Your task to perform on an android device: See recent photos Image 0: 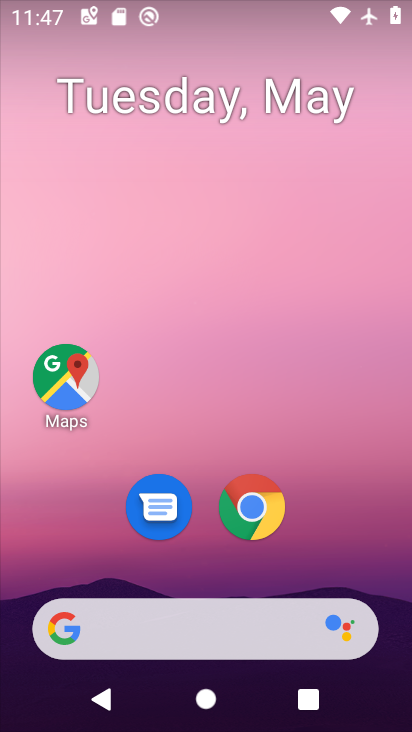
Step 0: drag from (259, 561) to (236, 173)
Your task to perform on an android device: See recent photos Image 1: 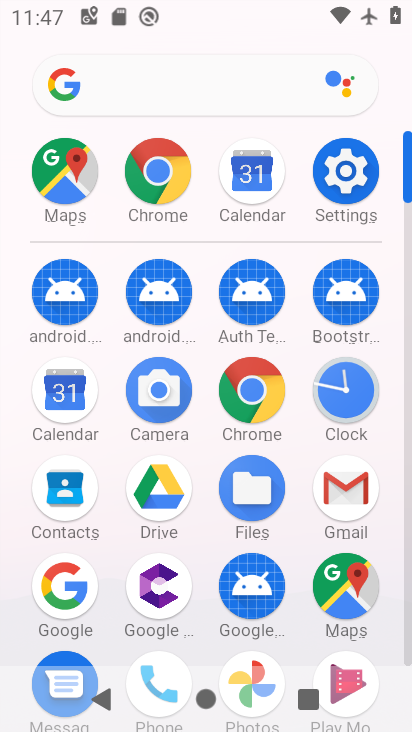
Step 1: click (230, 195)
Your task to perform on an android device: See recent photos Image 2: 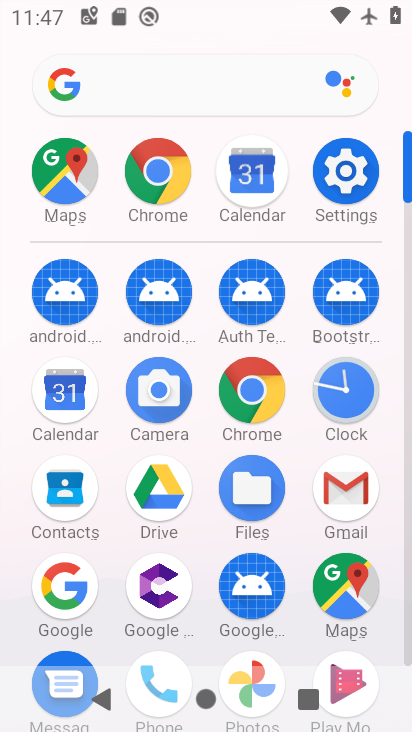
Step 2: drag from (217, 644) to (243, 263)
Your task to perform on an android device: See recent photos Image 3: 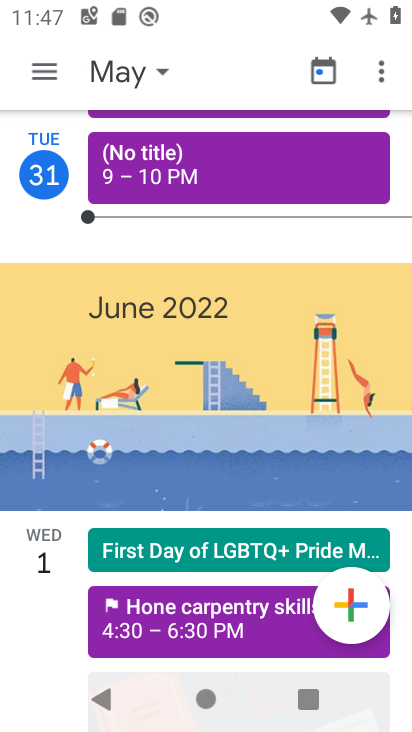
Step 3: drag from (281, 541) to (292, 274)
Your task to perform on an android device: See recent photos Image 4: 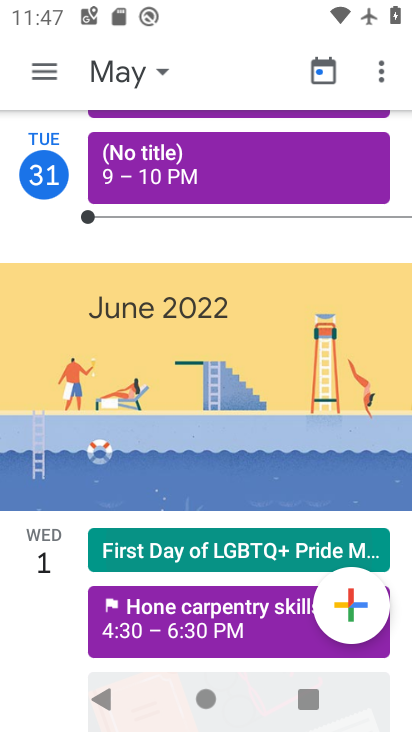
Step 4: click (298, 309)
Your task to perform on an android device: See recent photos Image 5: 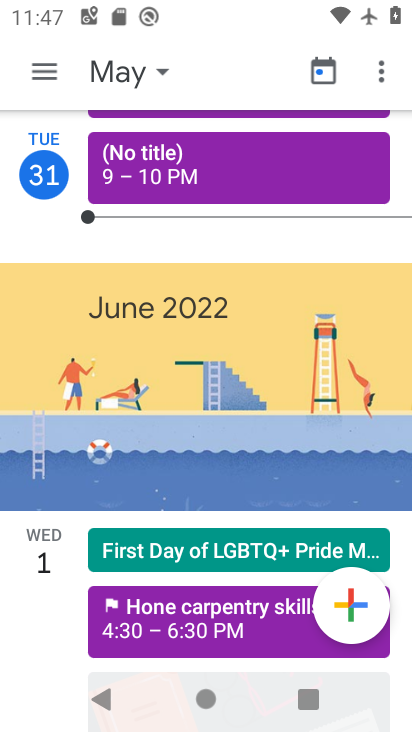
Step 5: drag from (304, 491) to (308, 248)
Your task to perform on an android device: See recent photos Image 6: 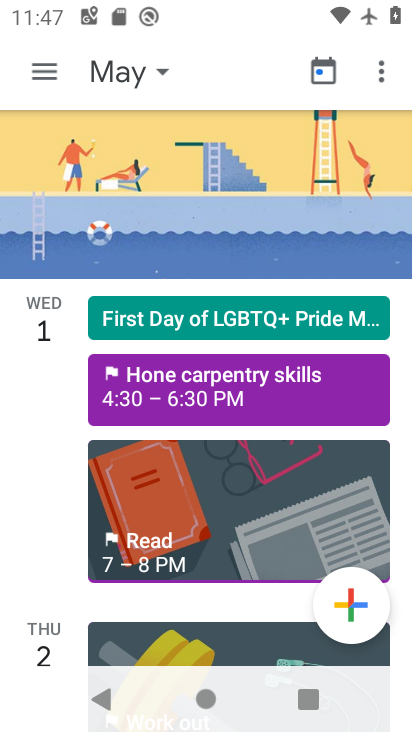
Step 6: press back button
Your task to perform on an android device: See recent photos Image 7: 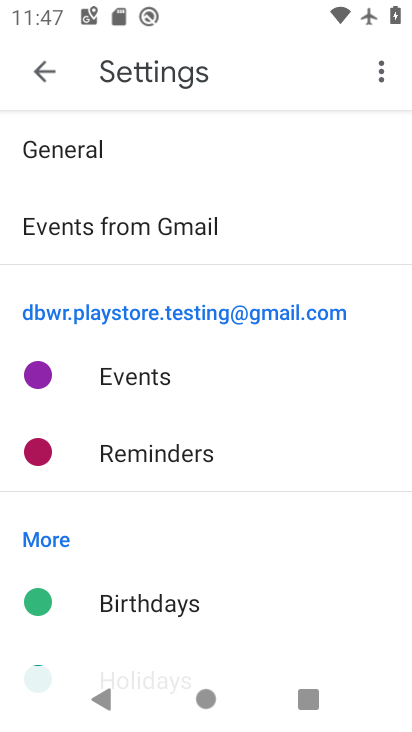
Step 7: click (49, 72)
Your task to perform on an android device: See recent photos Image 8: 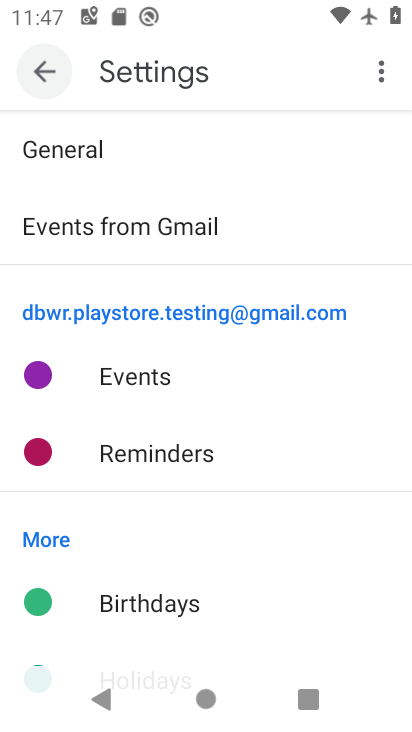
Step 8: click (49, 72)
Your task to perform on an android device: See recent photos Image 9: 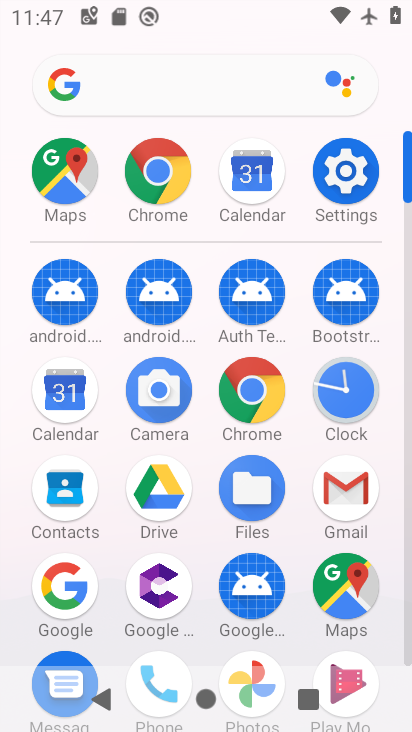
Step 9: click (266, 109)
Your task to perform on an android device: See recent photos Image 10: 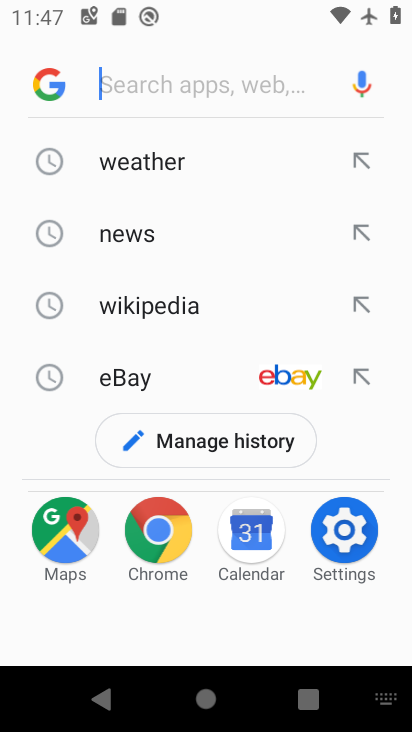
Step 10: click (259, 643)
Your task to perform on an android device: See recent photos Image 11: 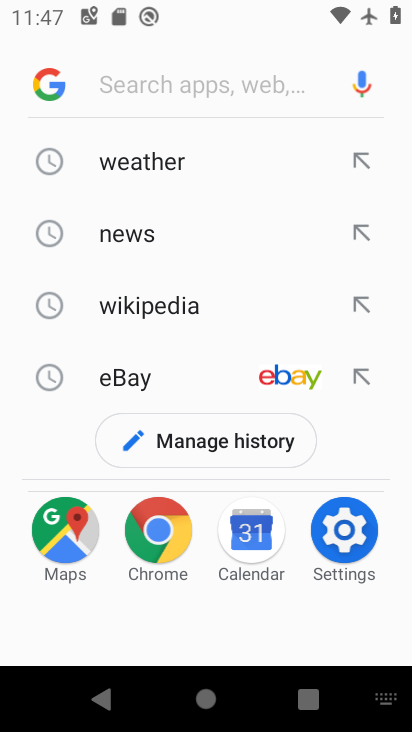
Step 11: drag from (295, 457) to (311, 115)
Your task to perform on an android device: See recent photos Image 12: 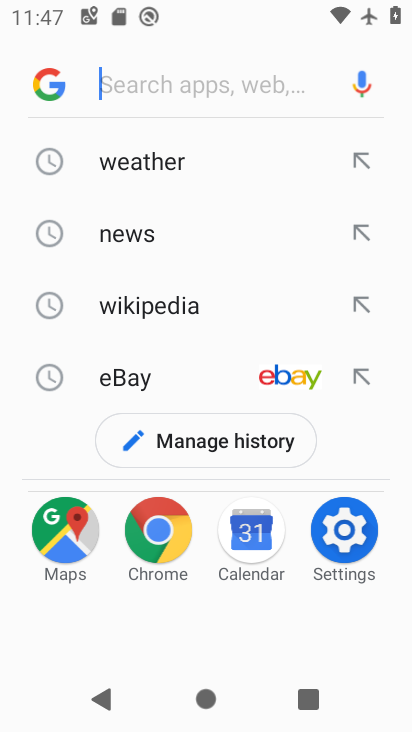
Step 12: drag from (294, 397) to (303, 157)
Your task to perform on an android device: See recent photos Image 13: 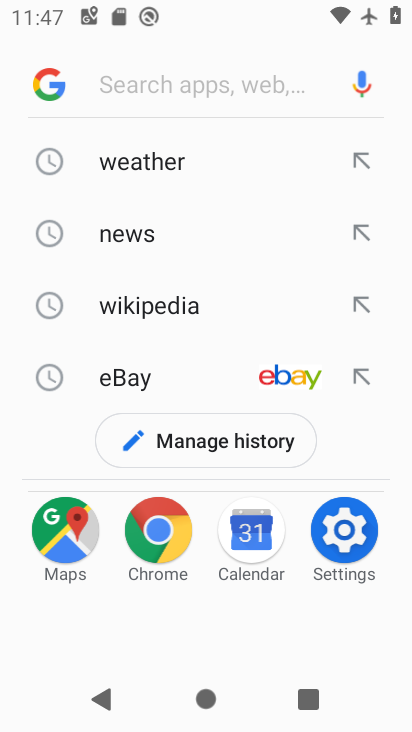
Step 13: drag from (275, 573) to (332, 145)
Your task to perform on an android device: See recent photos Image 14: 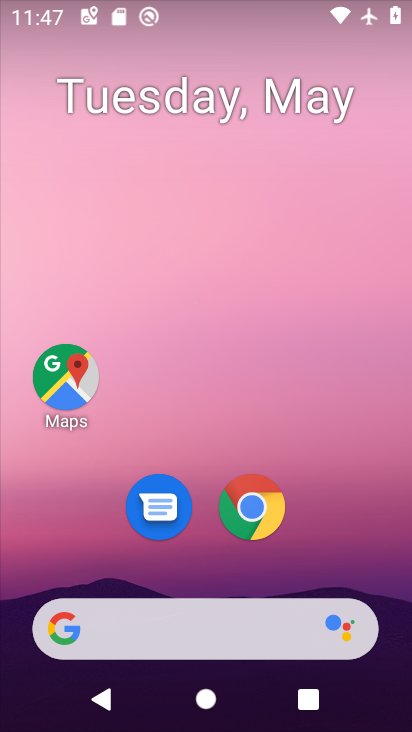
Step 14: press back button
Your task to perform on an android device: See recent photos Image 15: 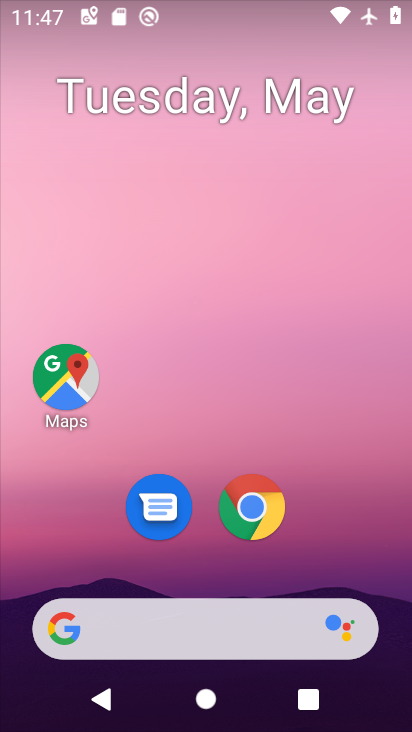
Step 15: press back button
Your task to perform on an android device: See recent photos Image 16: 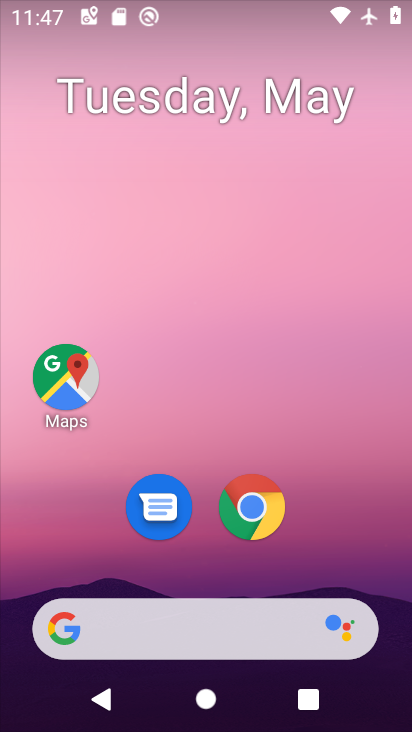
Step 16: drag from (266, 572) to (266, 118)
Your task to perform on an android device: See recent photos Image 17: 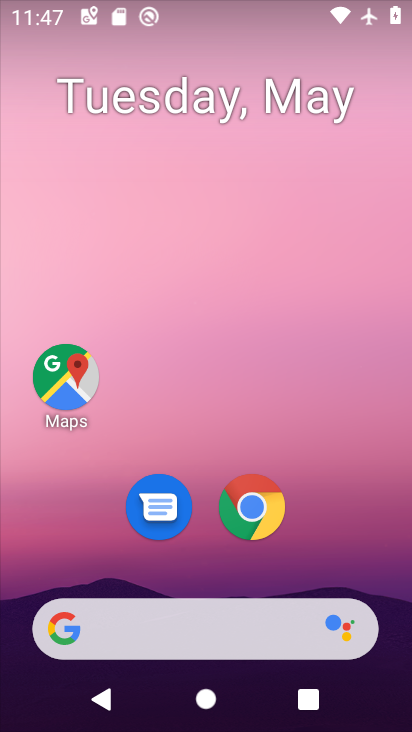
Step 17: drag from (243, 567) to (236, 105)
Your task to perform on an android device: See recent photos Image 18: 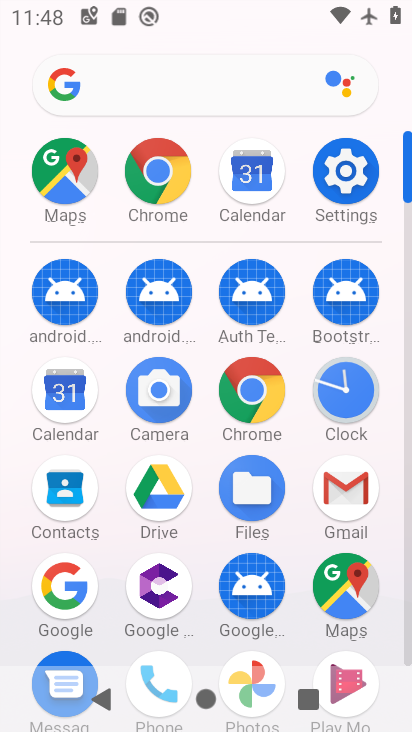
Step 18: drag from (268, 624) to (313, 268)
Your task to perform on an android device: See recent photos Image 19: 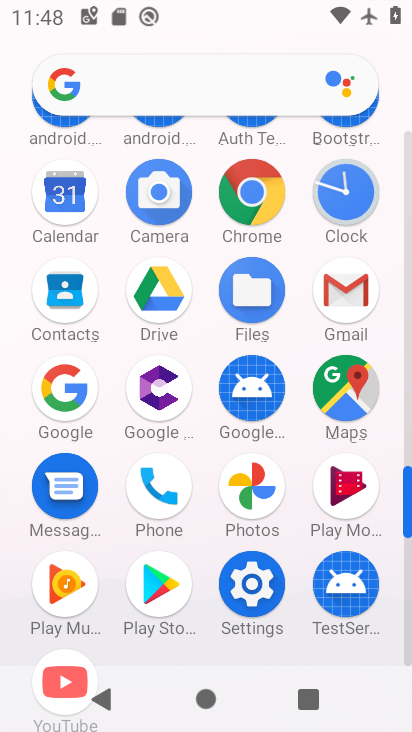
Step 19: drag from (314, 452) to (262, 181)
Your task to perform on an android device: See recent photos Image 20: 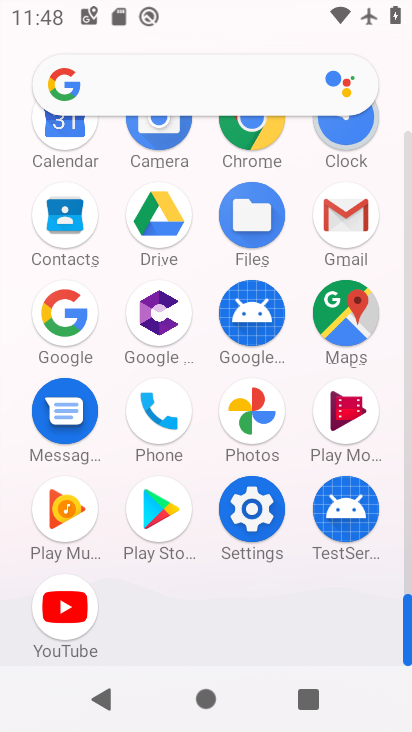
Step 20: click (261, 432)
Your task to perform on an android device: See recent photos Image 21: 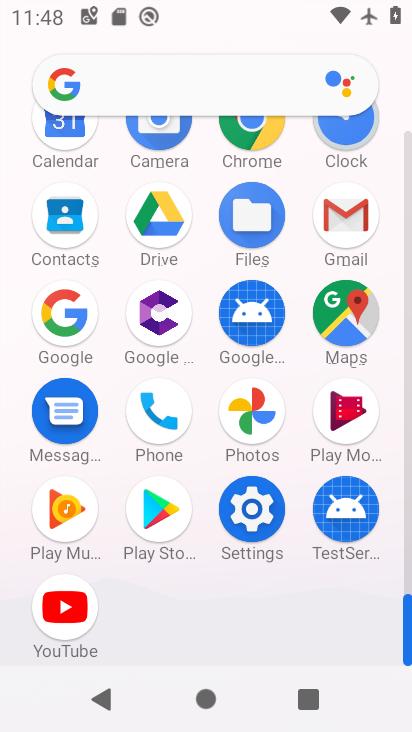
Step 21: click (260, 412)
Your task to perform on an android device: See recent photos Image 22: 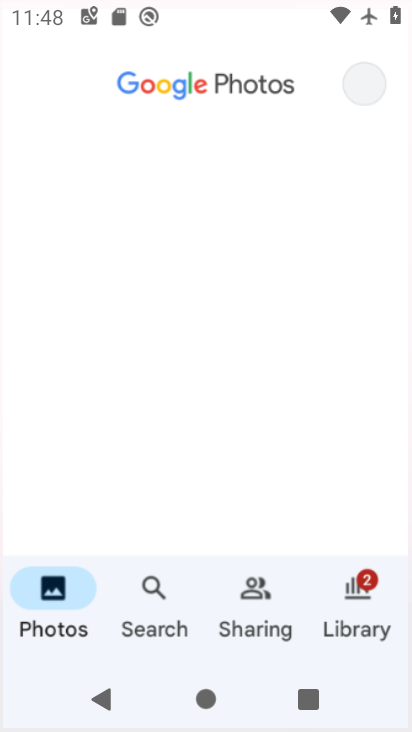
Step 22: click (260, 412)
Your task to perform on an android device: See recent photos Image 23: 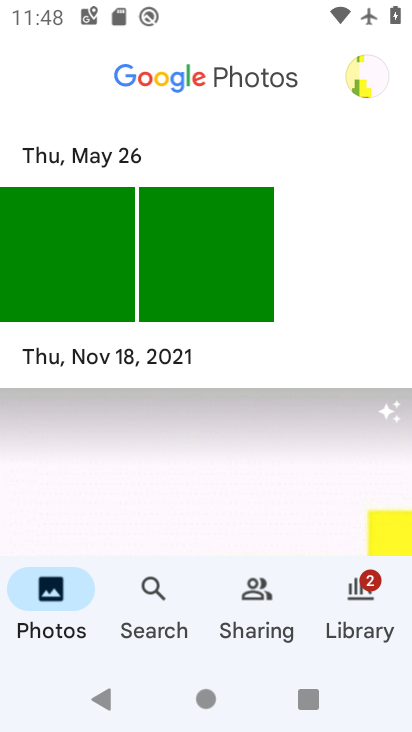
Step 23: task complete